Your task to perform on an android device: Search for "energizer triple a" on costco, select the first entry, add it to the cart, then select checkout. Image 0: 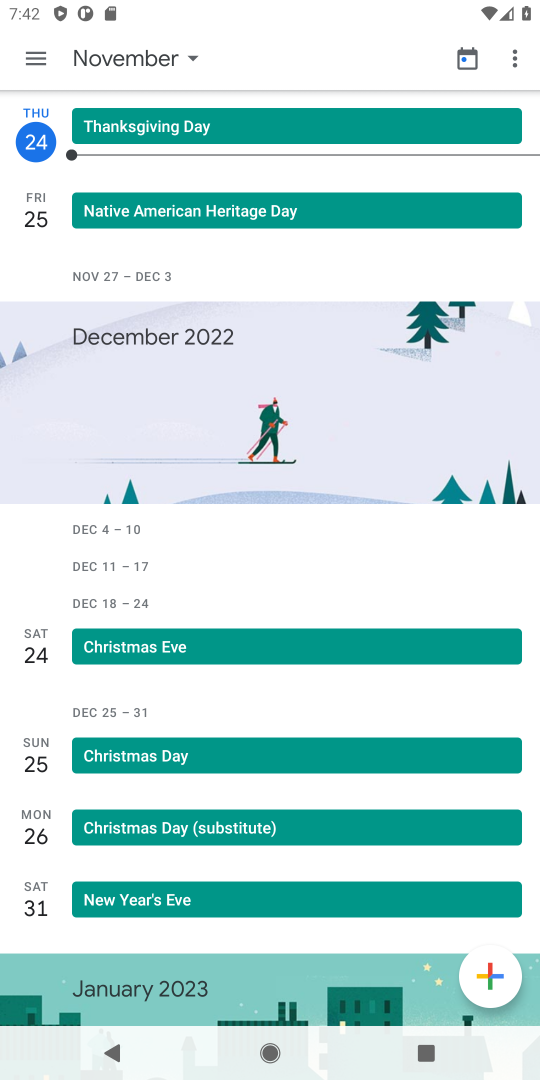
Step 0: press home button
Your task to perform on an android device: Search for "energizer triple a" on costco, select the first entry, add it to the cart, then select checkout. Image 1: 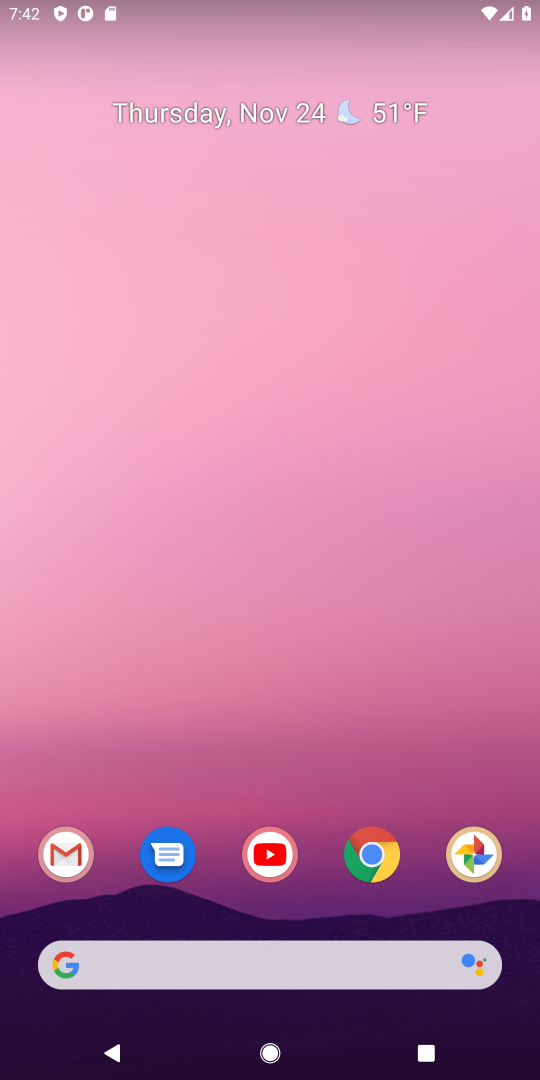
Step 1: click (385, 872)
Your task to perform on an android device: Search for "energizer triple a" on costco, select the first entry, add it to the cart, then select checkout. Image 2: 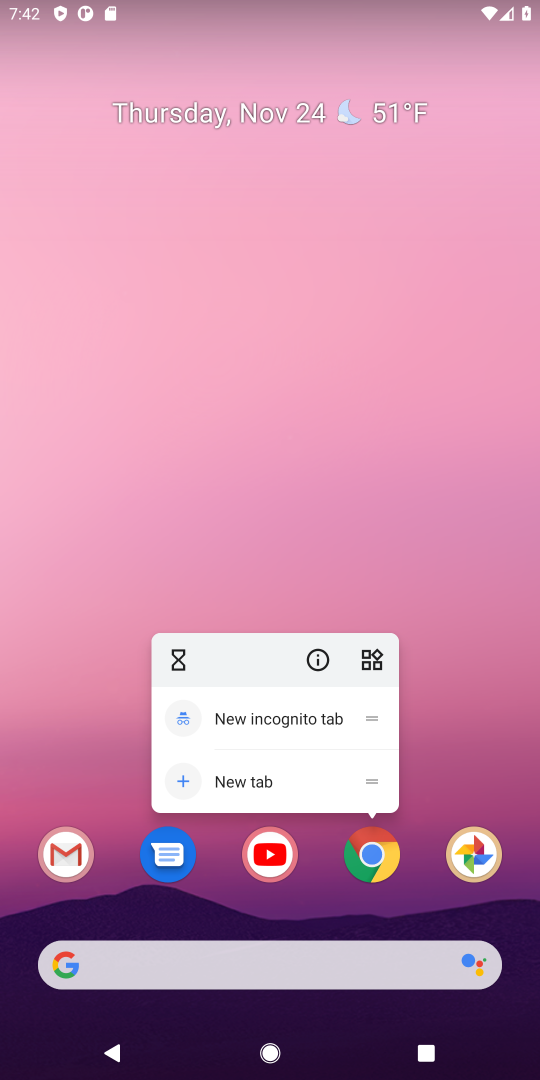
Step 2: click (373, 863)
Your task to perform on an android device: Search for "energizer triple a" on costco, select the first entry, add it to the cart, then select checkout. Image 3: 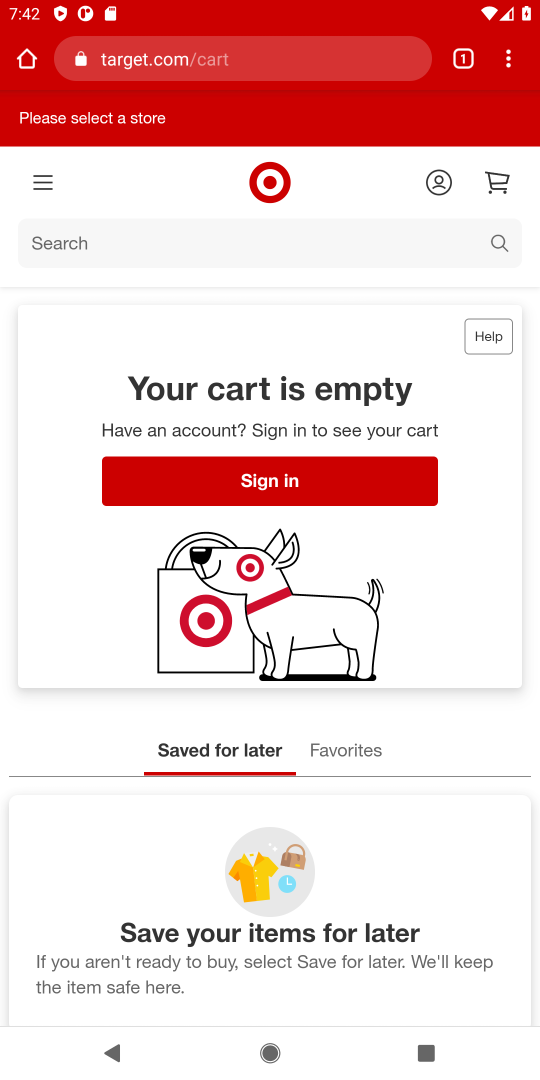
Step 3: click (153, 64)
Your task to perform on an android device: Search for "energizer triple a" on costco, select the first entry, add it to the cart, then select checkout. Image 4: 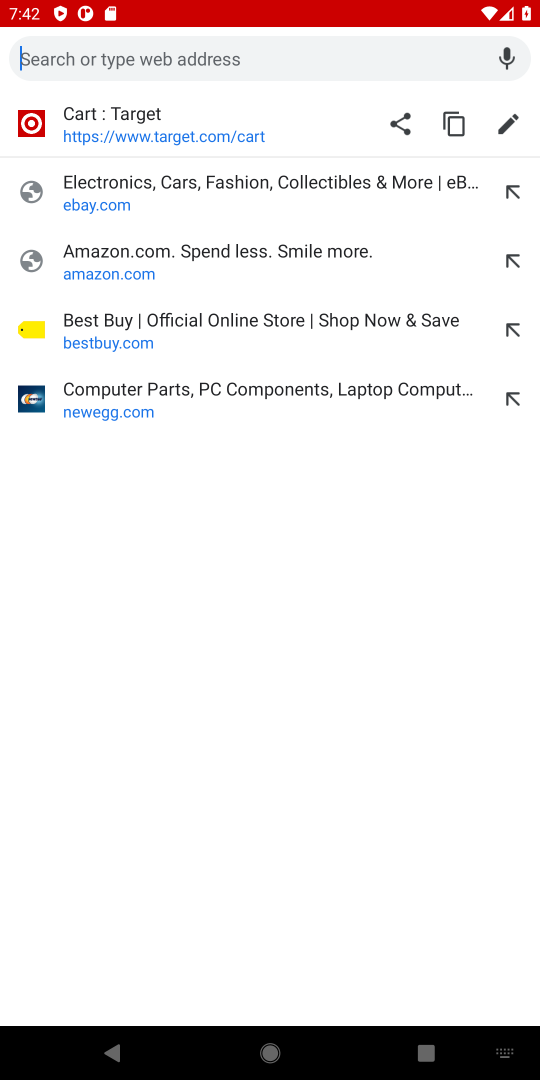
Step 4: type "costco.com"
Your task to perform on an android device: Search for "energizer triple a" on costco, select the first entry, add it to the cart, then select checkout. Image 5: 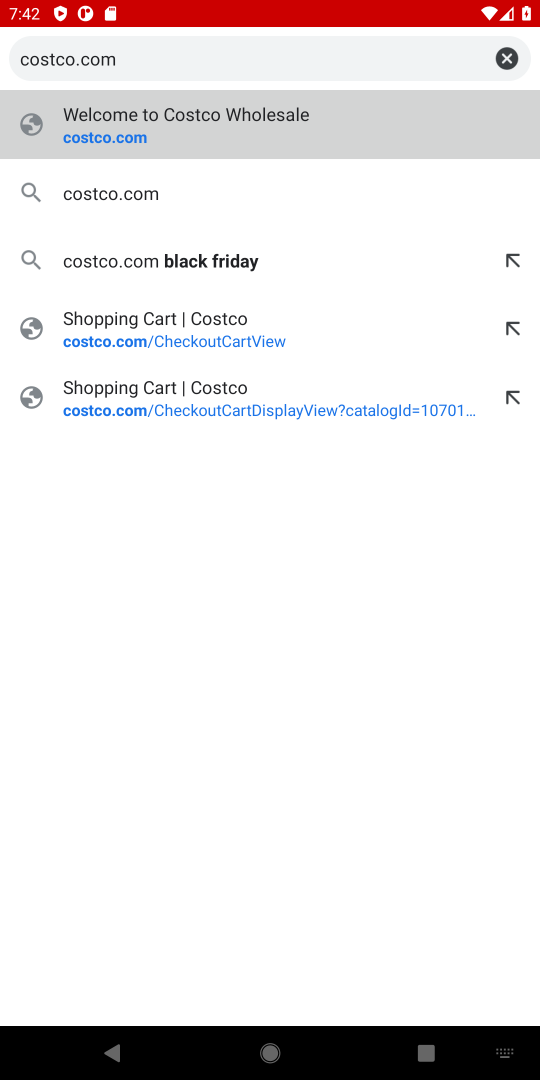
Step 5: click (79, 139)
Your task to perform on an android device: Search for "energizer triple a" on costco, select the first entry, add it to the cart, then select checkout. Image 6: 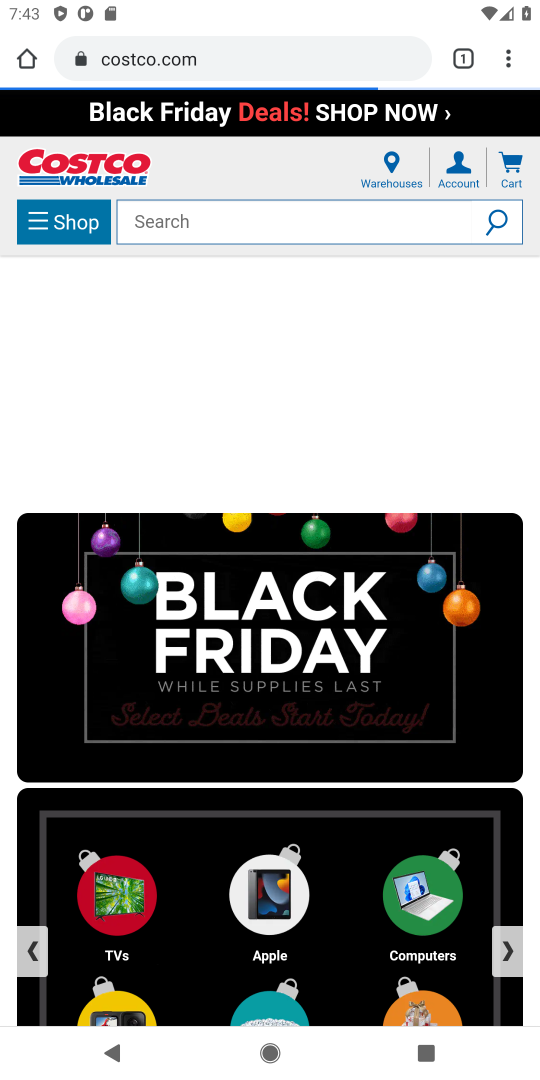
Step 6: click (143, 225)
Your task to perform on an android device: Search for "energizer triple a" on costco, select the first entry, add it to the cart, then select checkout. Image 7: 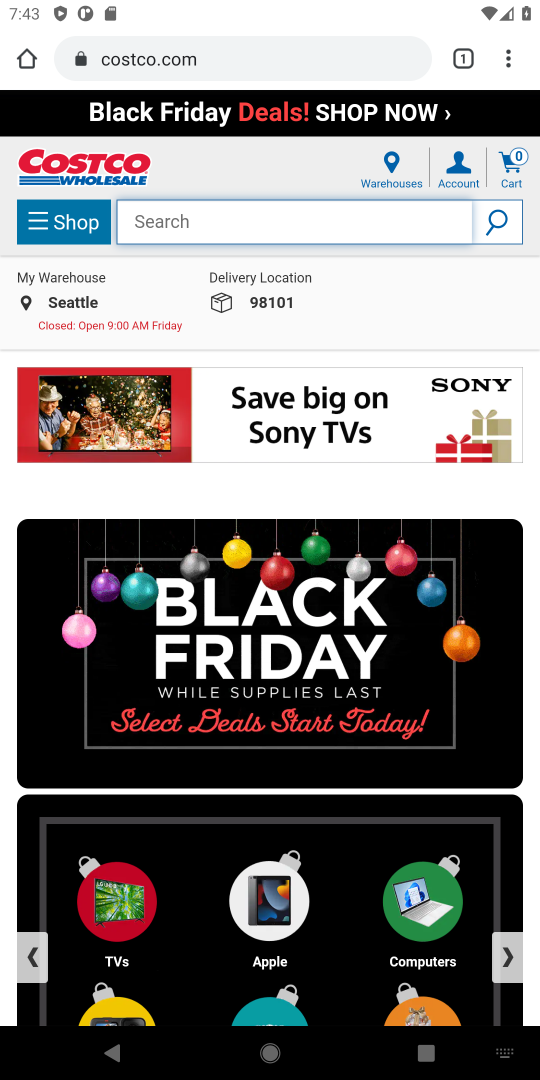
Step 7: type "energizer triple a"
Your task to perform on an android device: Search for "energizer triple a" on costco, select the first entry, add it to the cart, then select checkout. Image 8: 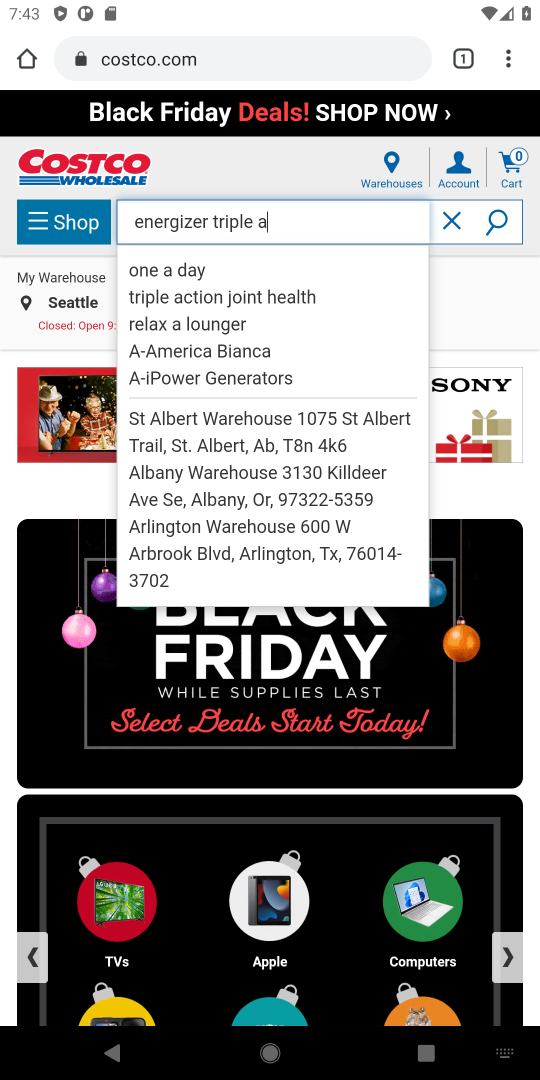
Step 8: click (520, 230)
Your task to perform on an android device: Search for "energizer triple a" on costco, select the first entry, add it to the cart, then select checkout. Image 9: 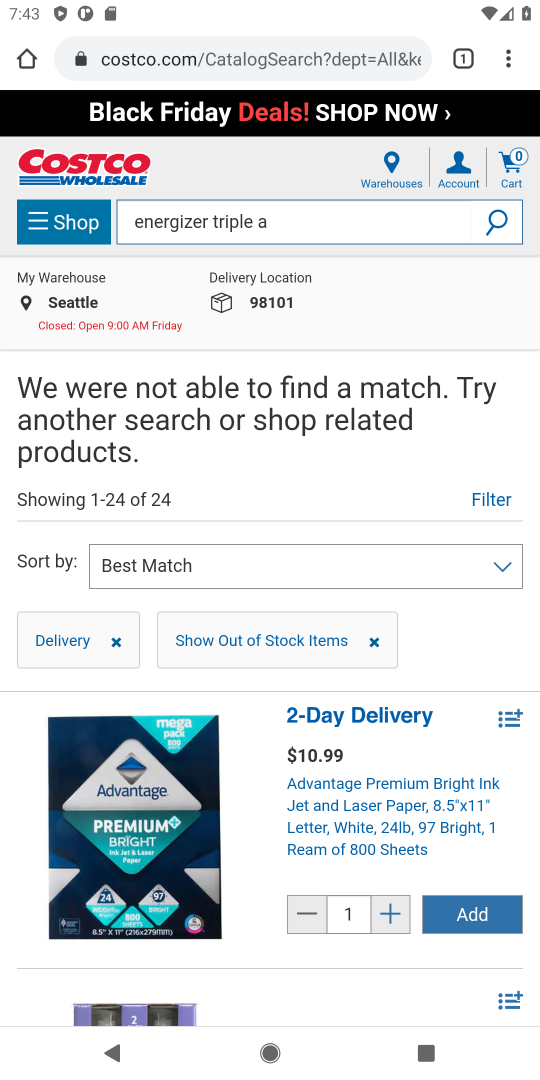
Step 9: task complete